Your task to perform on an android device: turn on priority inbox in the gmail app Image 0: 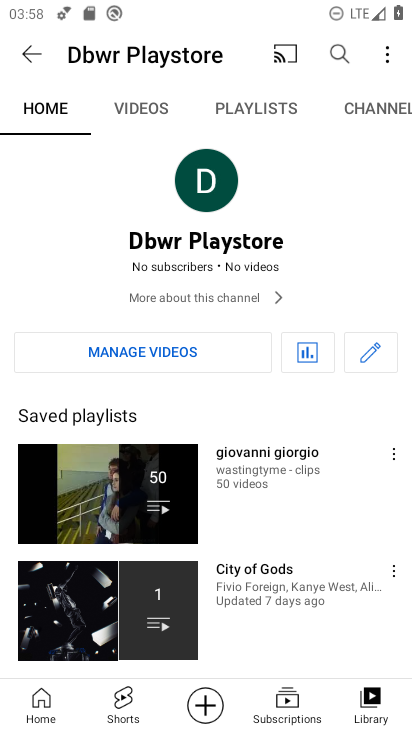
Step 0: press home button
Your task to perform on an android device: turn on priority inbox in the gmail app Image 1: 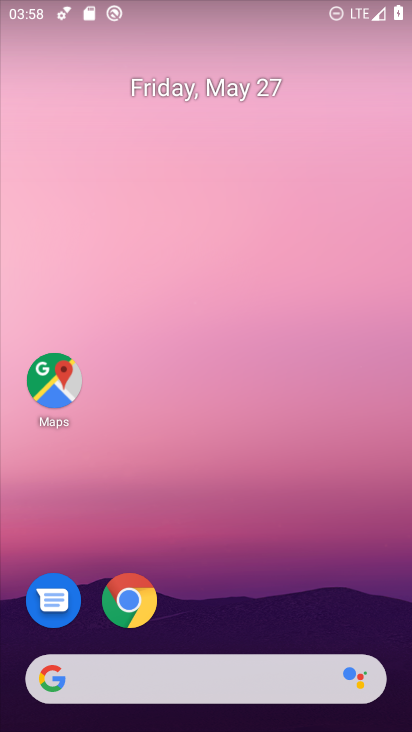
Step 1: drag from (215, 718) to (209, 131)
Your task to perform on an android device: turn on priority inbox in the gmail app Image 2: 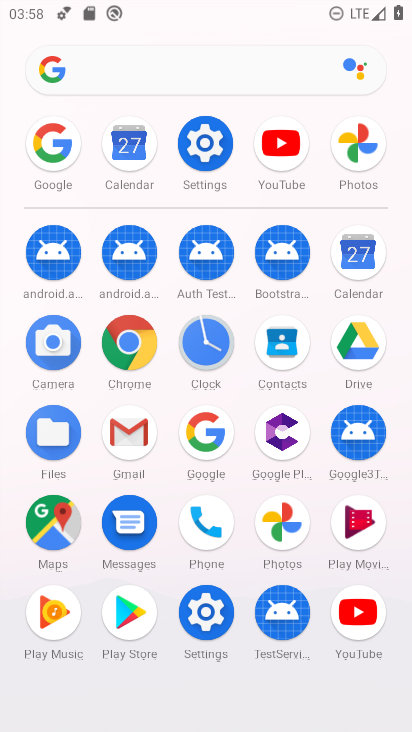
Step 2: click (135, 425)
Your task to perform on an android device: turn on priority inbox in the gmail app Image 3: 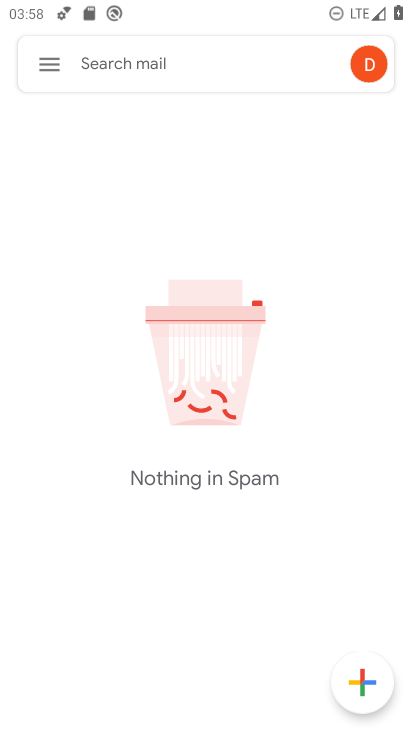
Step 3: click (51, 66)
Your task to perform on an android device: turn on priority inbox in the gmail app Image 4: 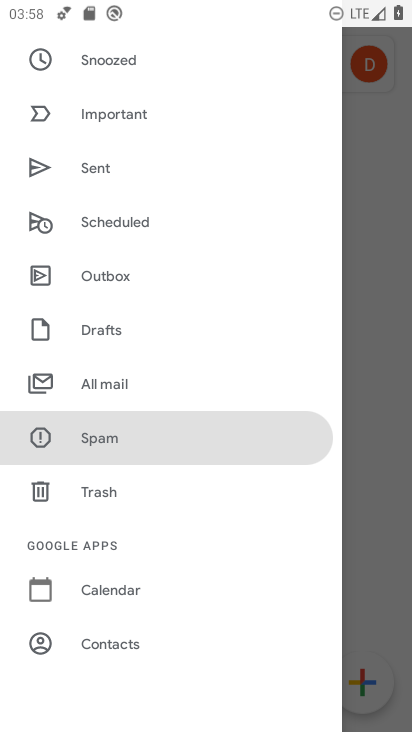
Step 4: drag from (132, 672) to (129, 183)
Your task to perform on an android device: turn on priority inbox in the gmail app Image 5: 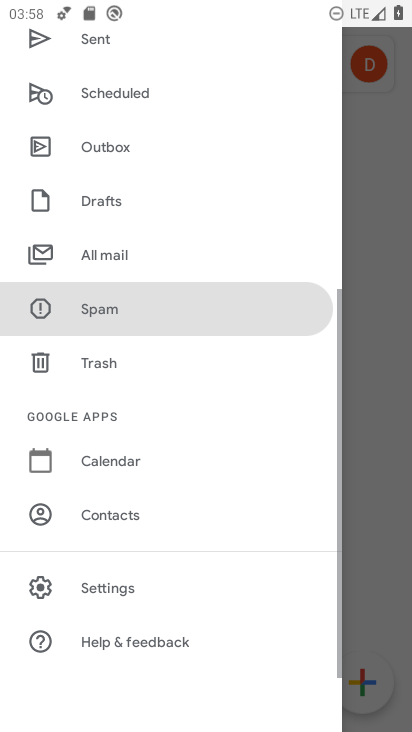
Step 5: click (102, 585)
Your task to perform on an android device: turn on priority inbox in the gmail app Image 6: 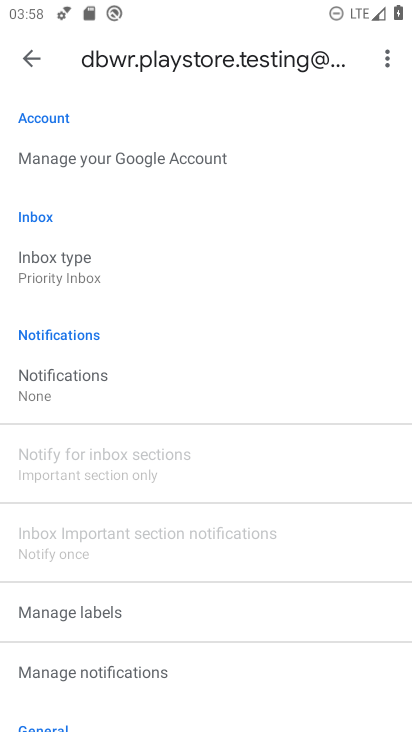
Step 6: task complete